Your task to perform on an android device: Show me recent news Image 0: 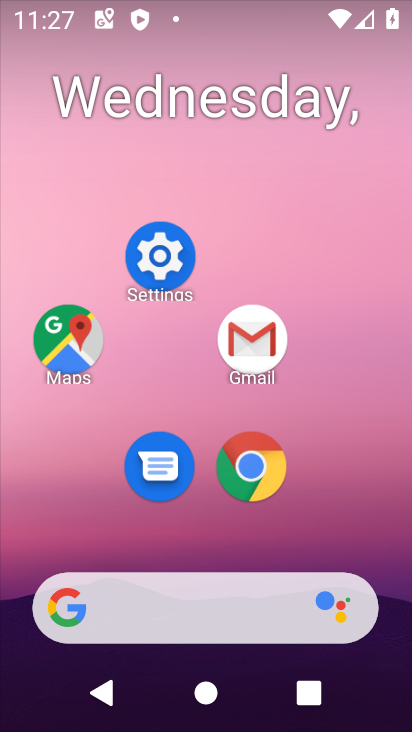
Step 0: drag from (190, 418) to (232, 77)
Your task to perform on an android device: Show me recent news Image 1: 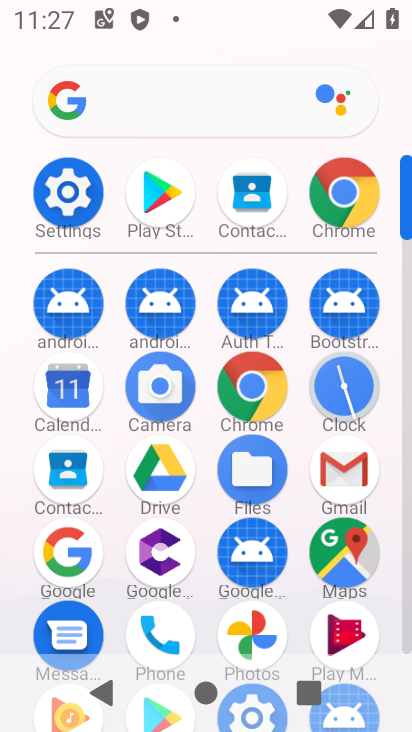
Step 1: click (201, 100)
Your task to perform on an android device: Show me recent news Image 2: 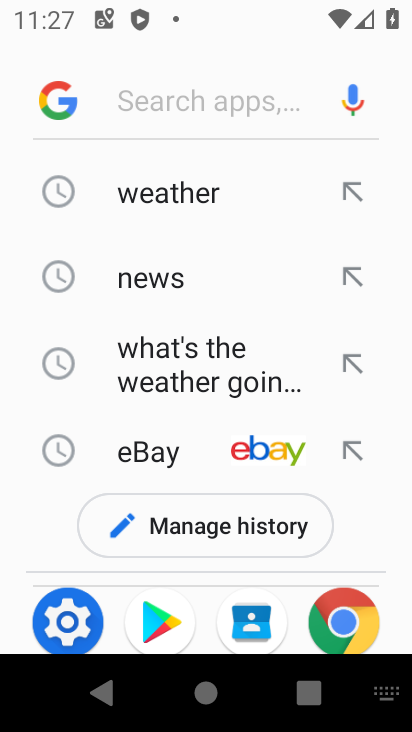
Step 2: type "recent news"
Your task to perform on an android device: Show me recent news Image 3: 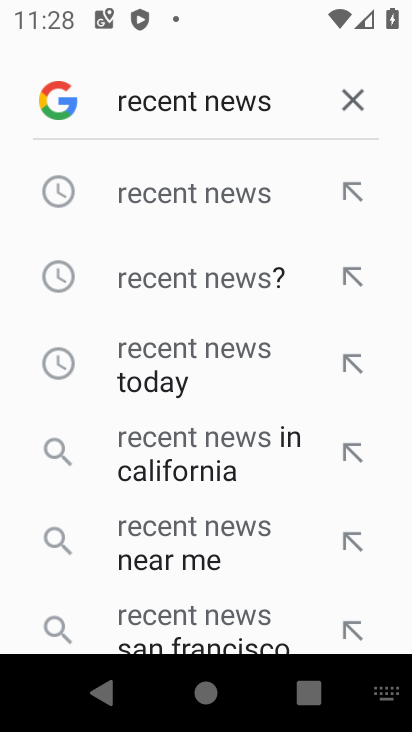
Step 3: click (172, 189)
Your task to perform on an android device: Show me recent news Image 4: 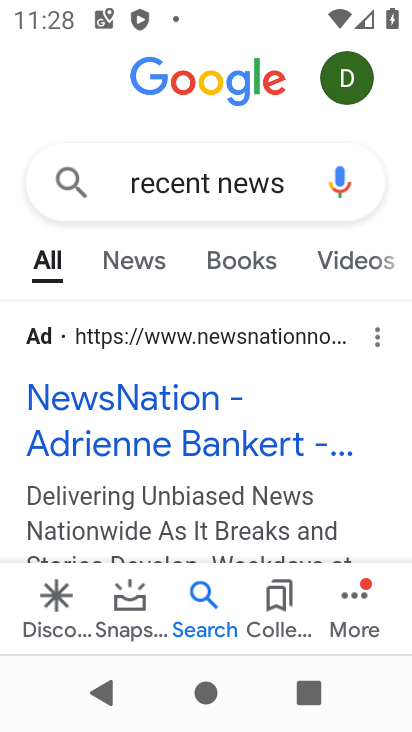
Step 4: task complete